Your task to perform on an android device: Open notification settings Image 0: 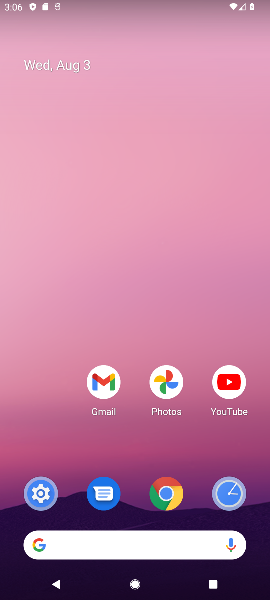
Step 0: drag from (53, 473) to (77, 103)
Your task to perform on an android device: Open notification settings Image 1: 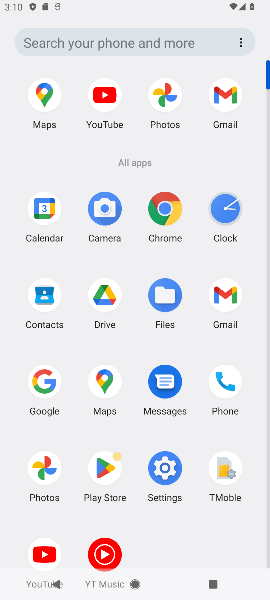
Step 1: click (169, 466)
Your task to perform on an android device: Open notification settings Image 2: 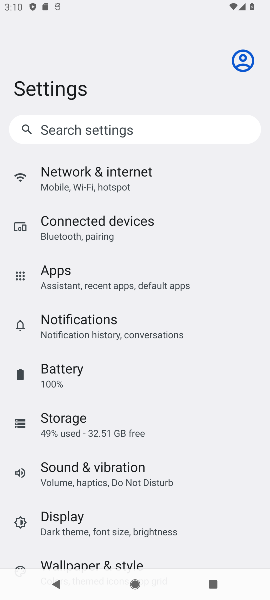
Step 2: click (115, 328)
Your task to perform on an android device: Open notification settings Image 3: 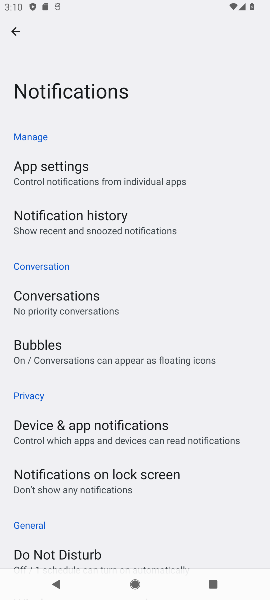
Step 3: task complete